Your task to perform on an android device: Go to ESPN.com Image 0: 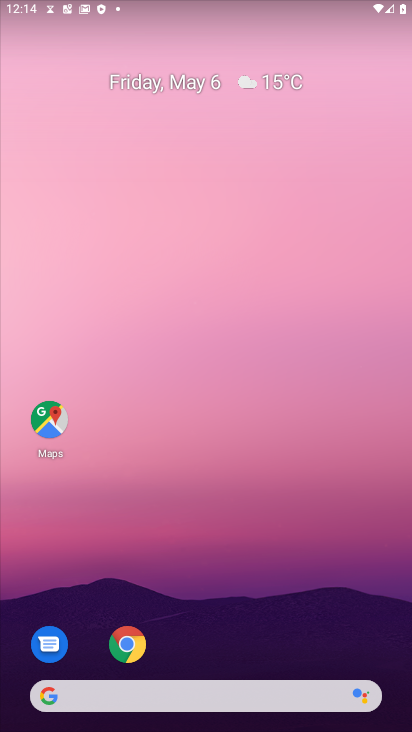
Step 0: drag from (310, 598) to (338, 8)
Your task to perform on an android device: Go to ESPN.com Image 1: 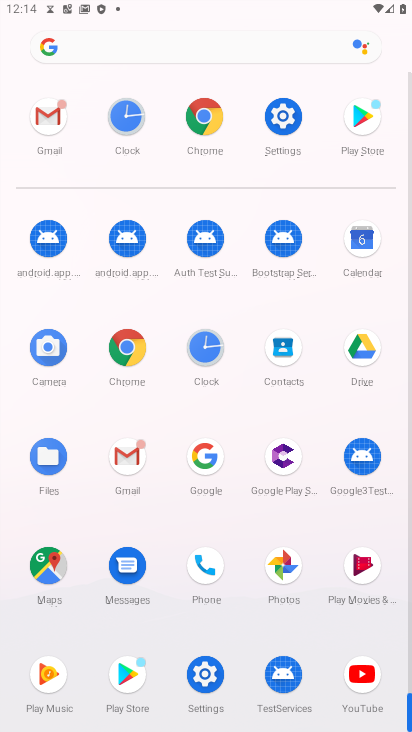
Step 1: click (127, 347)
Your task to perform on an android device: Go to ESPN.com Image 2: 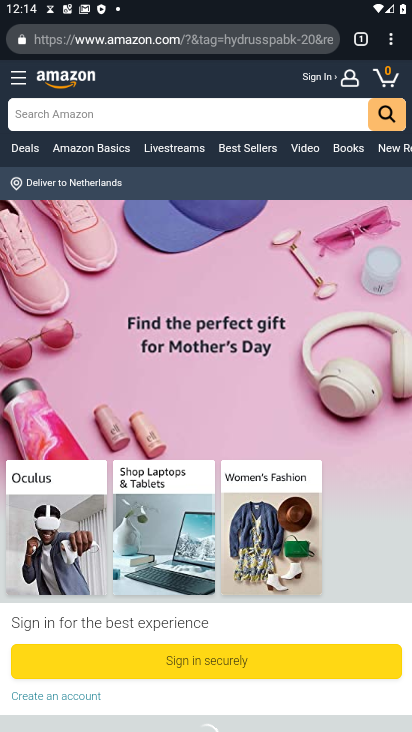
Step 2: click (142, 29)
Your task to perform on an android device: Go to ESPN.com Image 3: 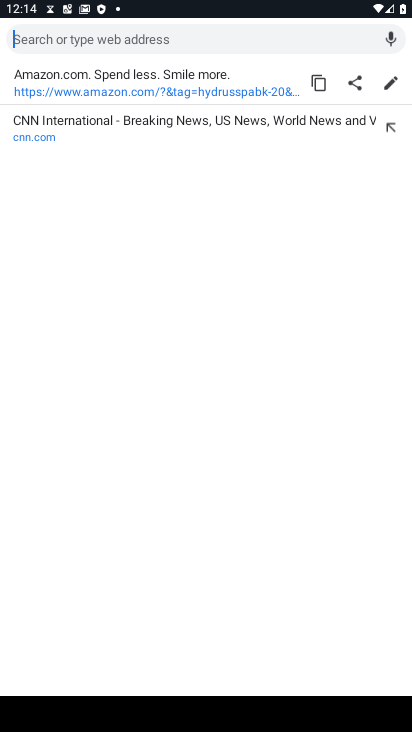
Step 3: type "ESPN.com"
Your task to perform on an android device: Go to ESPN.com Image 4: 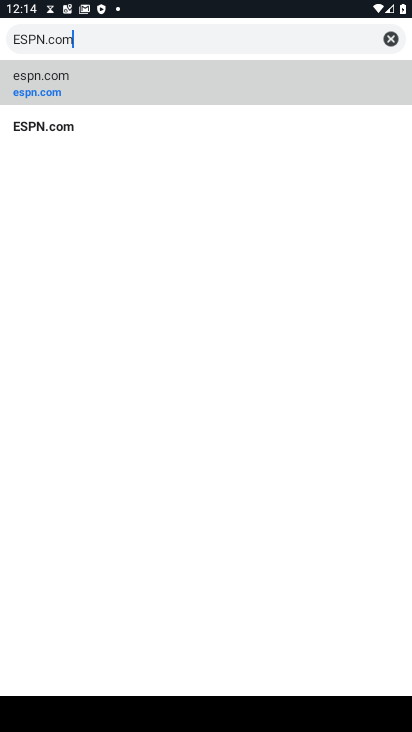
Step 4: type ""
Your task to perform on an android device: Go to ESPN.com Image 5: 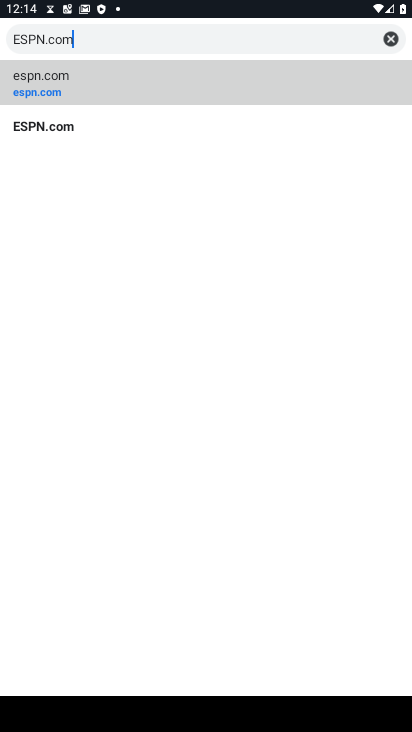
Step 5: click (57, 80)
Your task to perform on an android device: Go to ESPN.com Image 6: 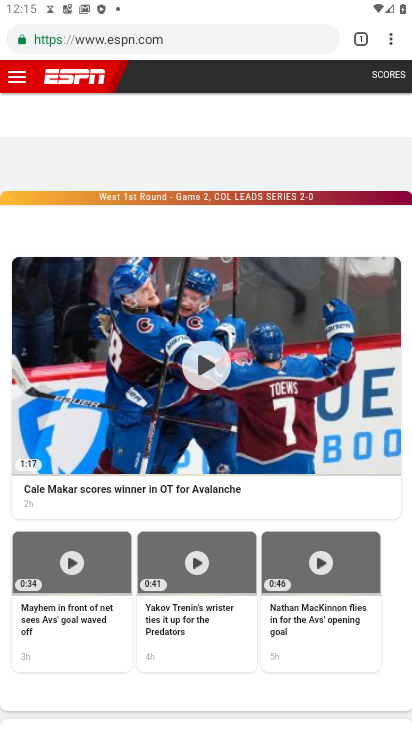
Step 6: task complete